Your task to perform on an android device: Play the last video I watched on Youtube Image 0: 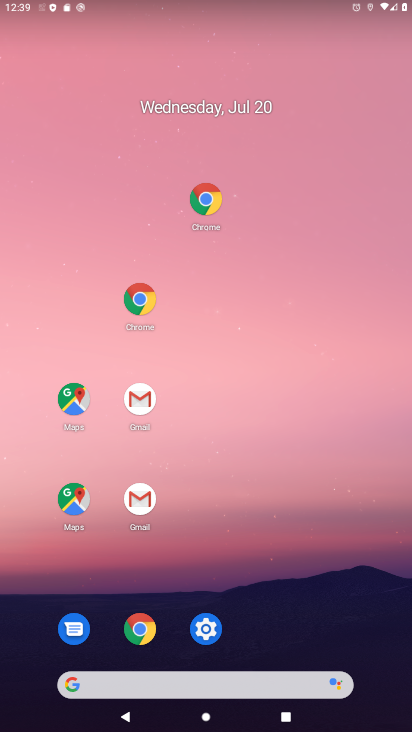
Step 0: drag from (265, 672) to (283, 19)
Your task to perform on an android device: Play the last video I watched on Youtube Image 1: 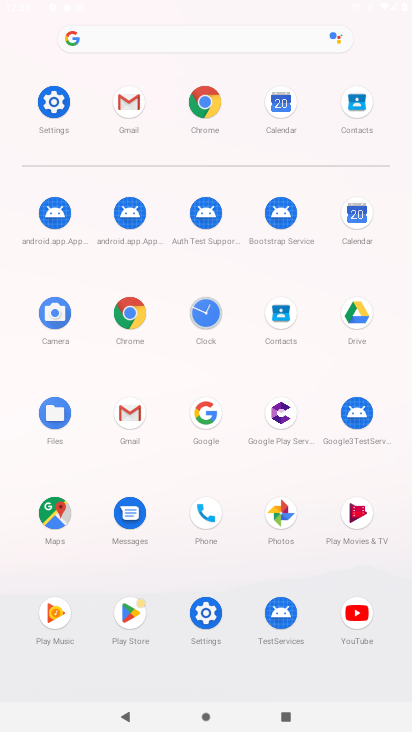
Step 1: click (350, 612)
Your task to perform on an android device: Play the last video I watched on Youtube Image 2: 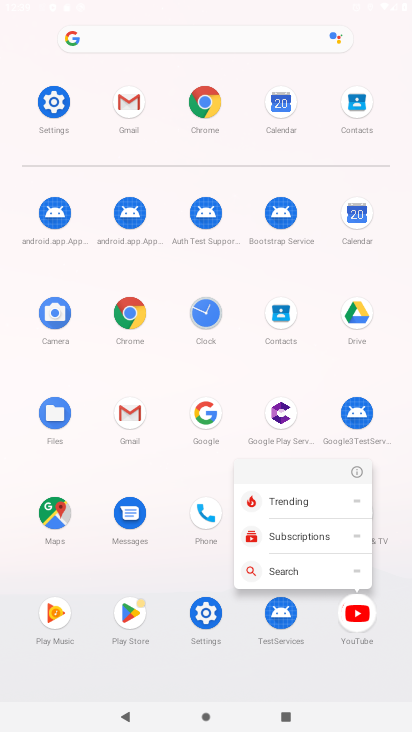
Step 2: click (350, 611)
Your task to perform on an android device: Play the last video I watched on Youtube Image 3: 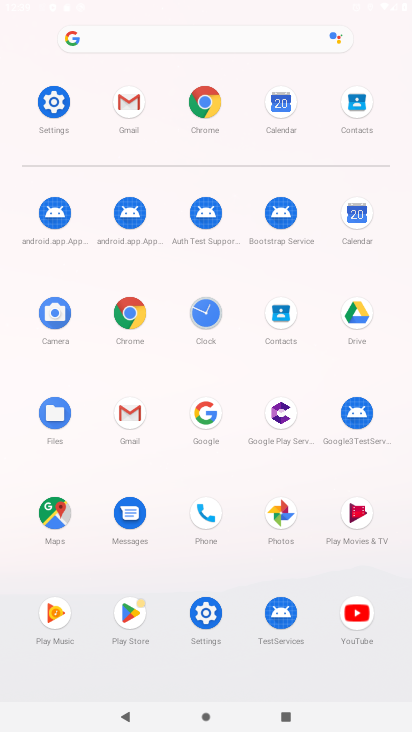
Step 3: click (352, 615)
Your task to perform on an android device: Play the last video I watched on Youtube Image 4: 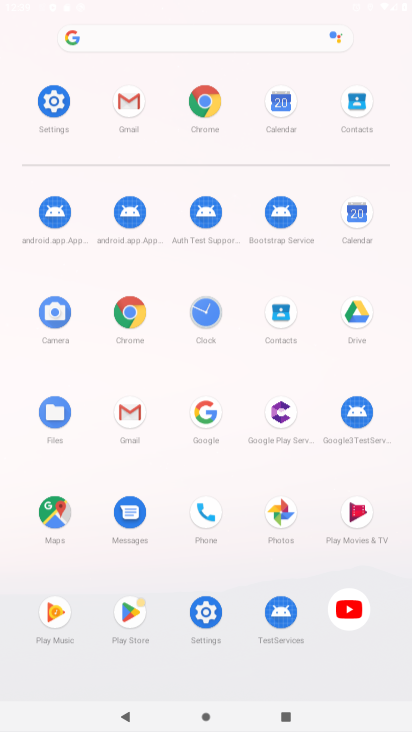
Step 4: click (348, 622)
Your task to perform on an android device: Play the last video I watched on Youtube Image 5: 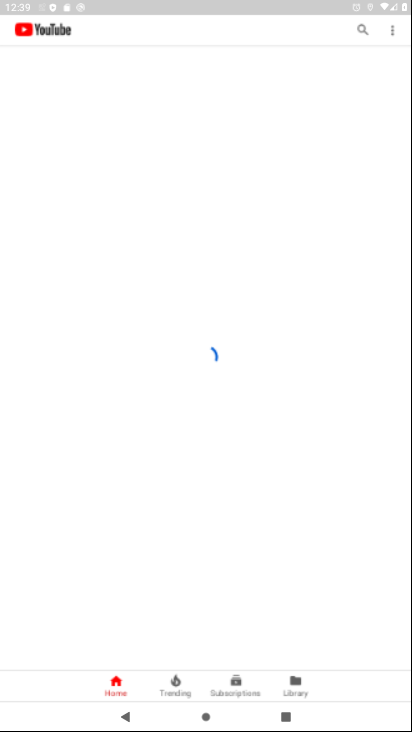
Step 5: click (348, 622)
Your task to perform on an android device: Play the last video I watched on Youtube Image 6: 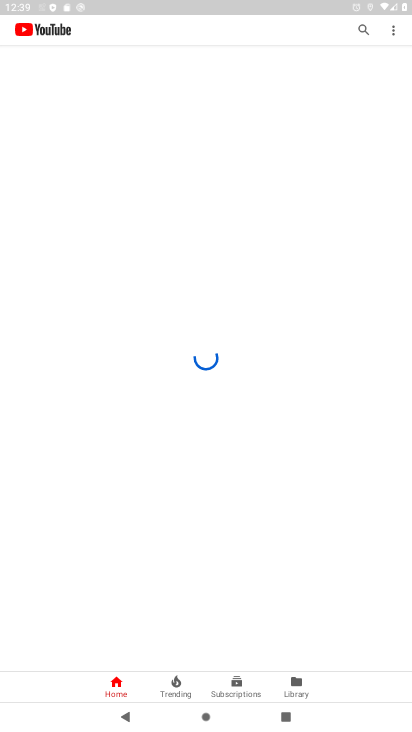
Step 6: click (349, 622)
Your task to perform on an android device: Play the last video I watched on Youtube Image 7: 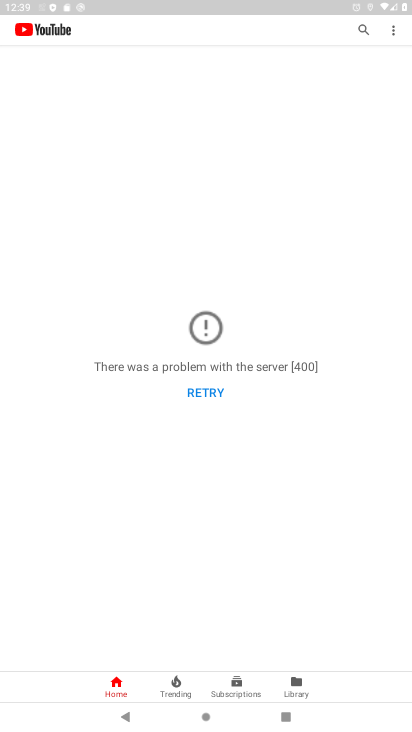
Step 7: click (125, 690)
Your task to perform on an android device: Play the last video I watched on Youtube Image 8: 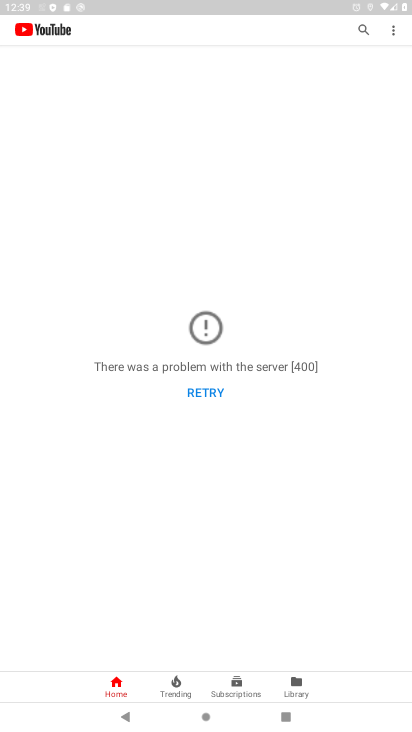
Step 8: task complete